Your task to perform on an android device: Search for Italian restaurants on Maps Image 0: 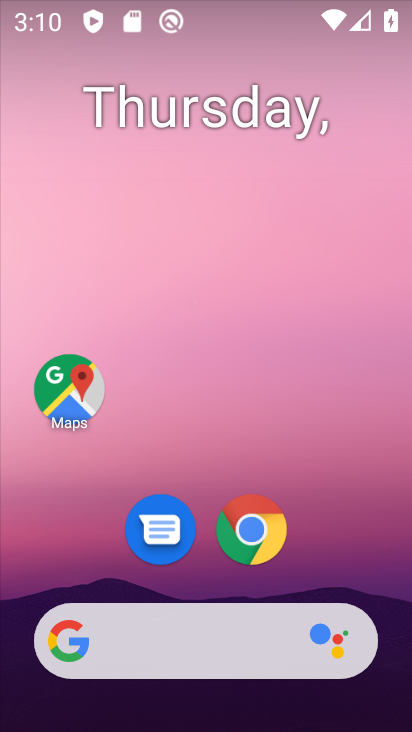
Step 0: drag from (348, 518) to (291, 12)
Your task to perform on an android device: Search for Italian restaurants on Maps Image 1: 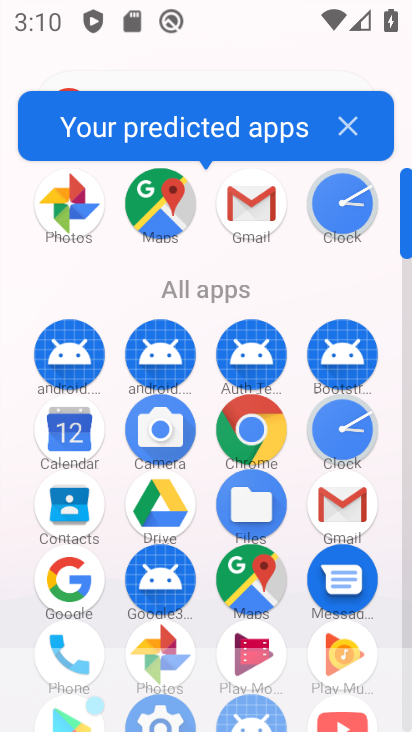
Step 1: click (159, 209)
Your task to perform on an android device: Search for Italian restaurants on Maps Image 2: 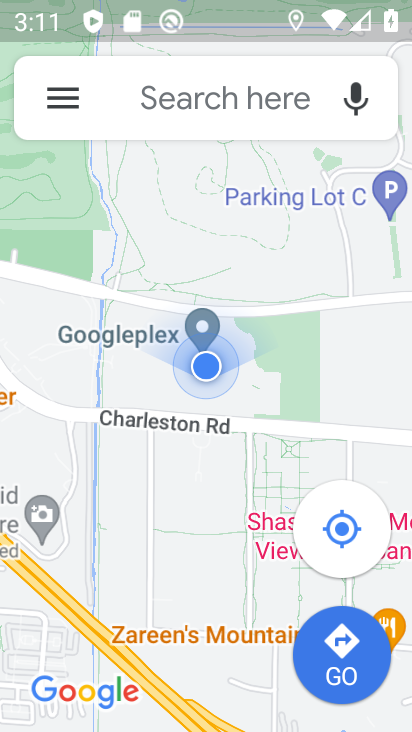
Step 2: click (167, 84)
Your task to perform on an android device: Search for Italian restaurants on Maps Image 3: 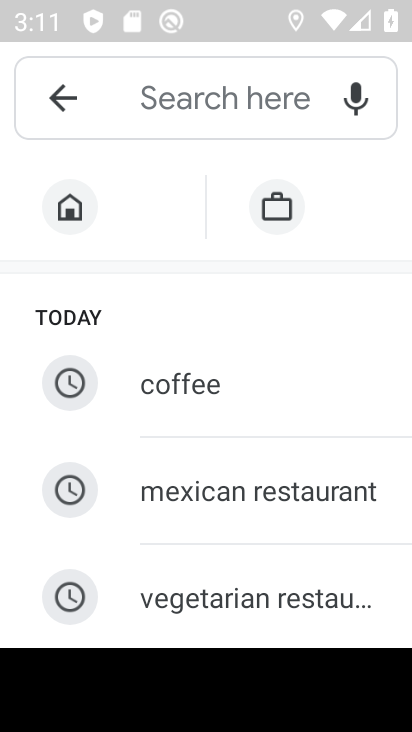
Step 3: drag from (208, 593) to (141, 158)
Your task to perform on an android device: Search for Italian restaurants on Maps Image 4: 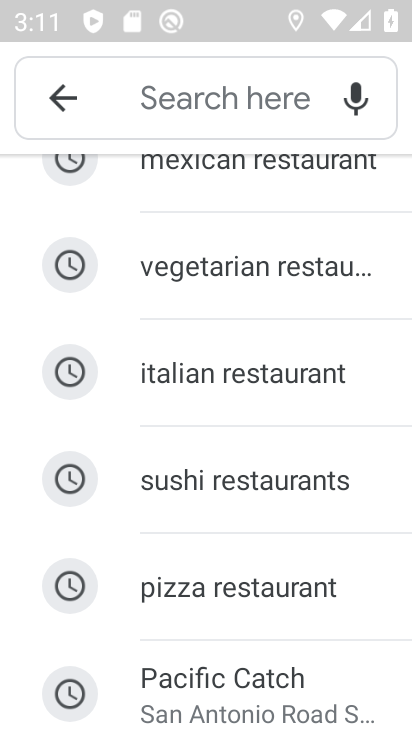
Step 4: drag from (202, 645) to (195, 213)
Your task to perform on an android device: Search for Italian restaurants on Maps Image 5: 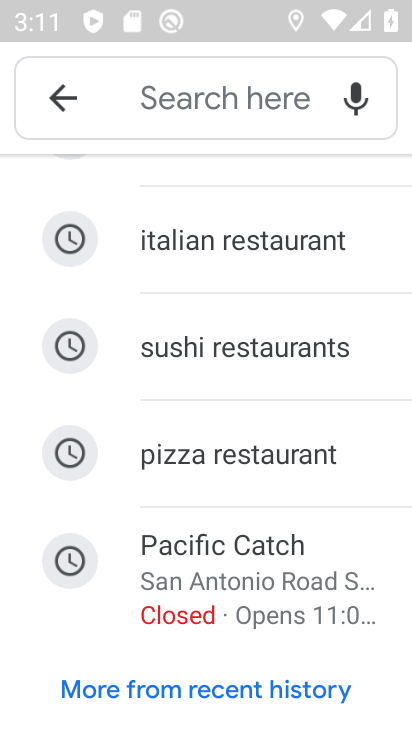
Step 5: click (200, 236)
Your task to perform on an android device: Search for Italian restaurants on Maps Image 6: 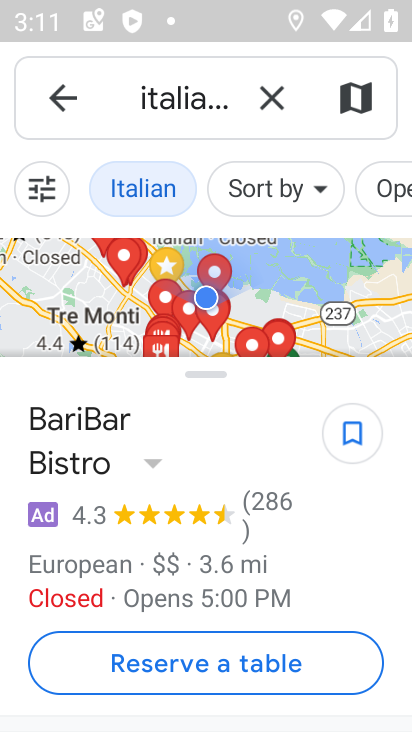
Step 6: task complete